Your task to perform on an android device: Open Youtube and go to the subscriptions tab Image 0: 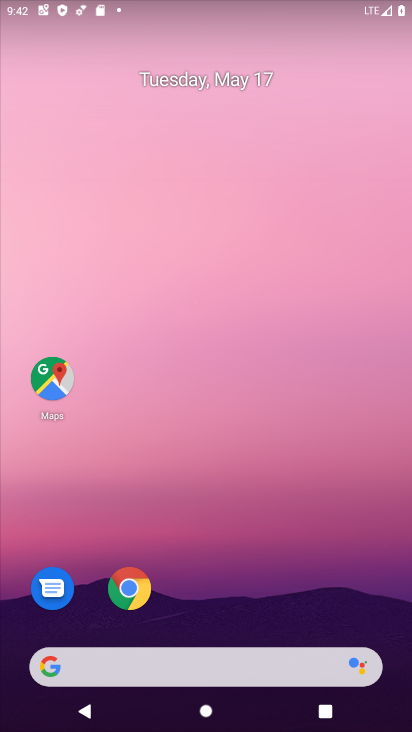
Step 0: drag from (213, 655) to (157, 2)
Your task to perform on an android device: Open Youtube and go to the subscriptions tab Image 1: 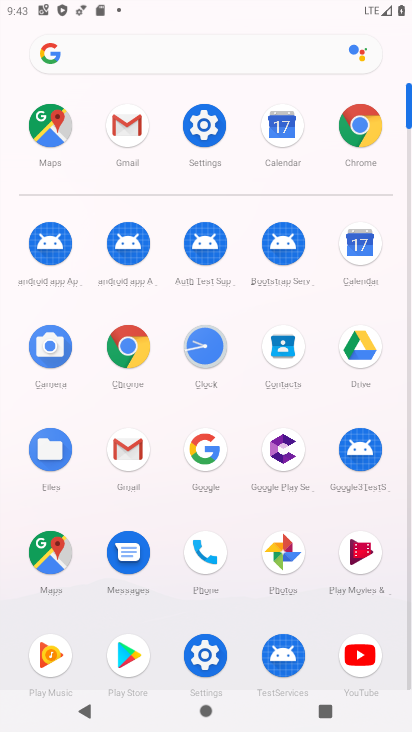
Step 1: click (362, 654)
Your task to perform on an android device: Open Youtube and go to the subscriptions tab Image 2: 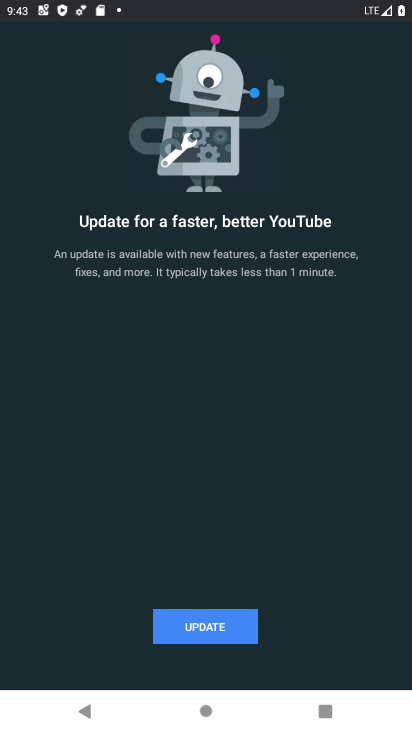
Step 2: drag from (203, 645) to (104, 645)
Your task to perform on an android device: Open Youtube and go to the subscriptions tab Image 3: 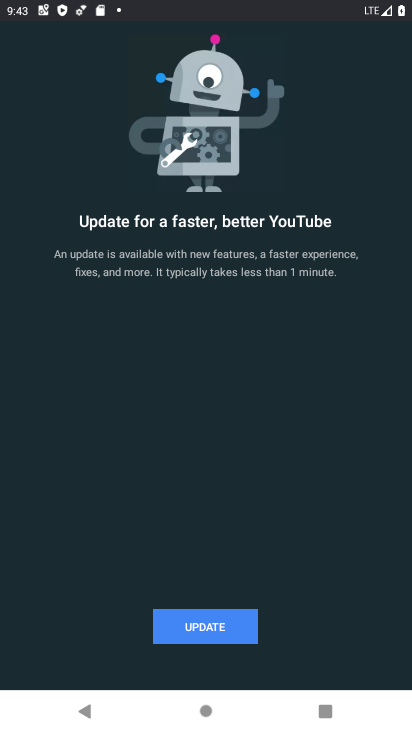
Step 3: click (170, 630)
Your task to perform on an android device: Open Youtube and go to the subscriptions tab Image 4: 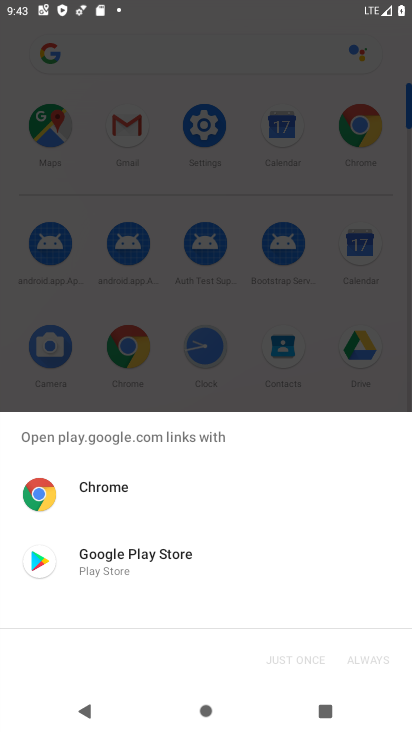
Step 4: click (140, 581)
Your task to perform on an android device: Open Youtube and go to the subscriptions tab Image 5: 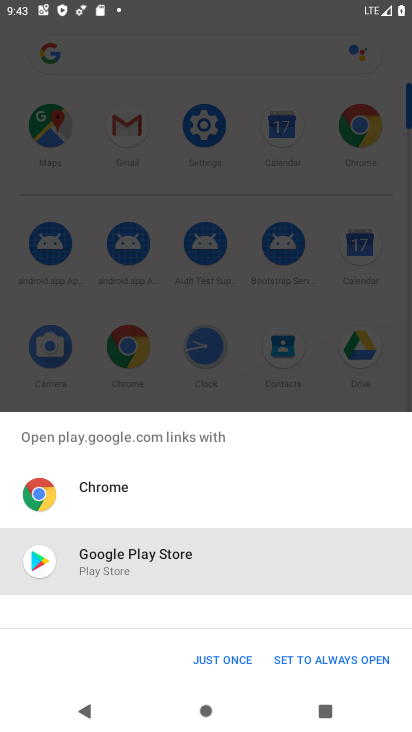
Step 5: click (222, 652)
Your task to perform on an android device: Open Youtube and go to the subscriptions tab Image 6: 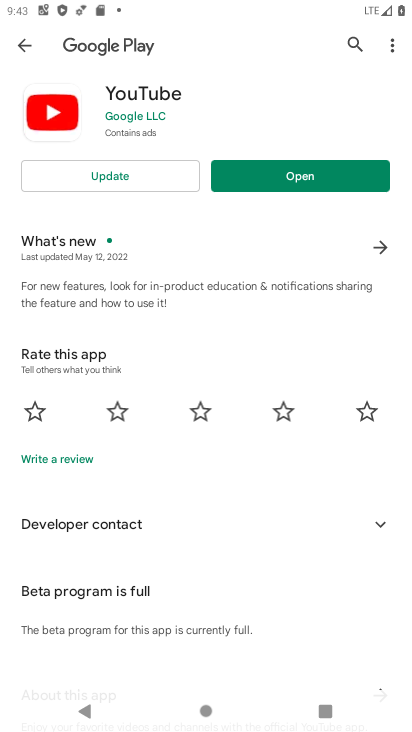
Step 6: click (160, 179)
Your task to perform on an android device: Open Youtube and go to the subscriptions tab Image 7: 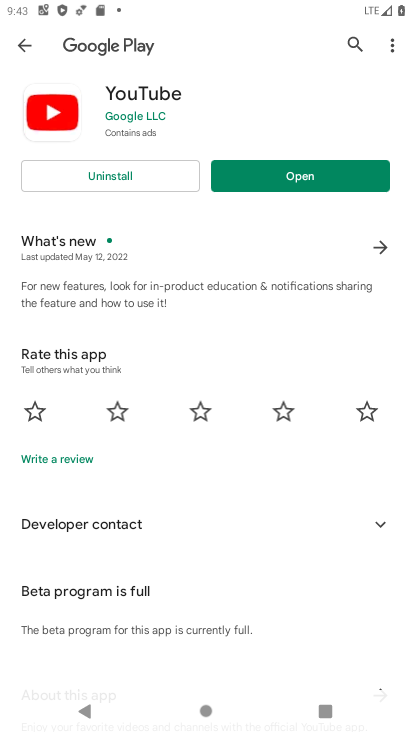
Step 7: click (310, 177)
Your task to perform on an android device: Open Youtube and go to the subscriptions tab Image 8: 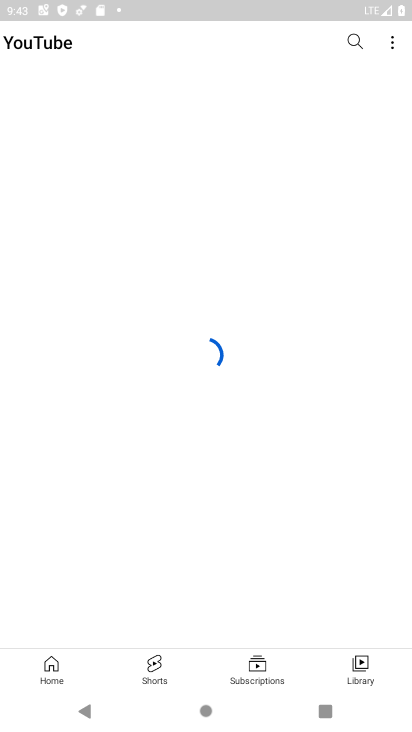
Step 8: click (258, 670)
Your task to perform on an android device: Open Youtube and go to the subscriptions tab Image 9: 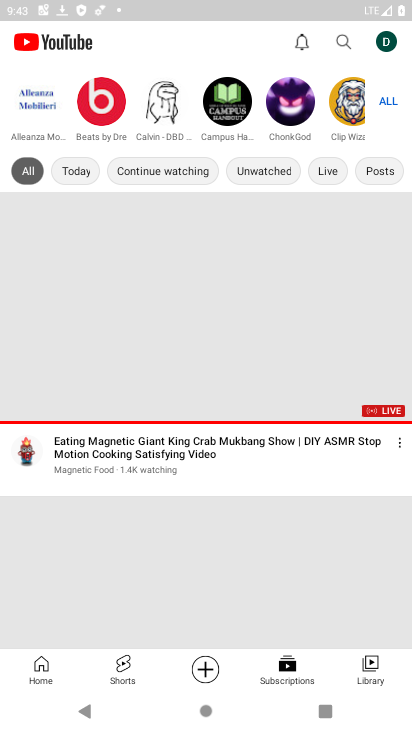
Step 9: task complete